Your task to perform on an android device: Open Yahoo.com Image 0: 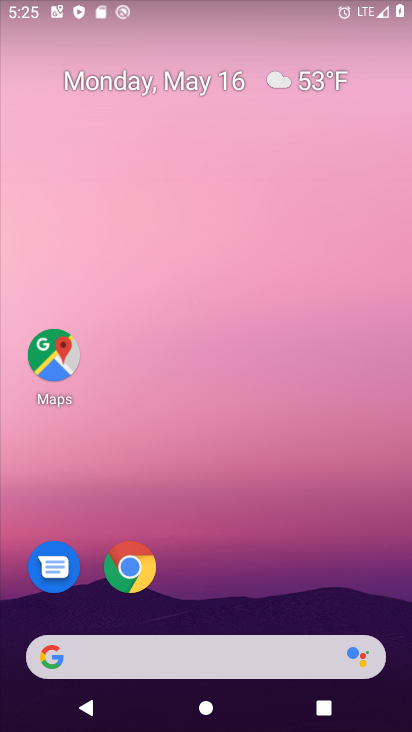
Step 0: drag from (269, 672) to (312, 46)
Your task to perform on an android device: Open Yahoo.com Image 1: 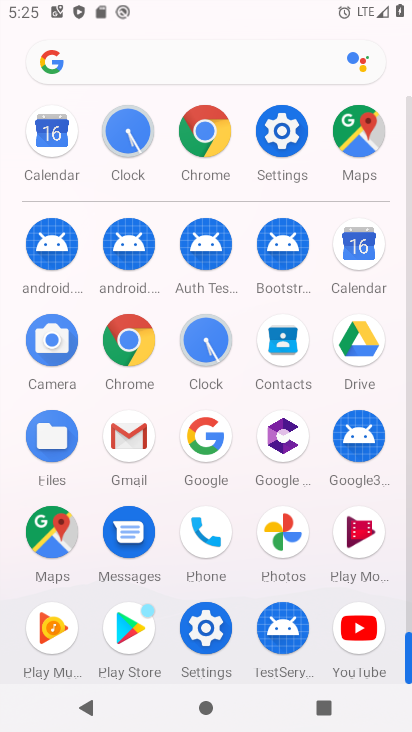
Step 1: click (146, 333)
Your task to perform on an android device: Open Yahoo.com Image 2: 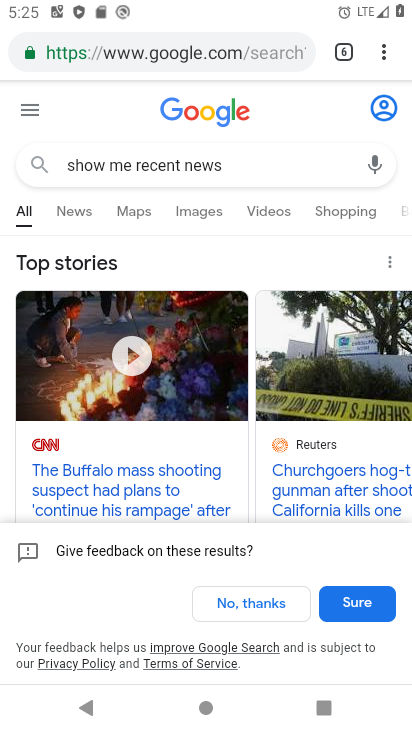
Step 2: click (234, 48)
Your task to perform on an android device: Open Yahoo.com Image 3: 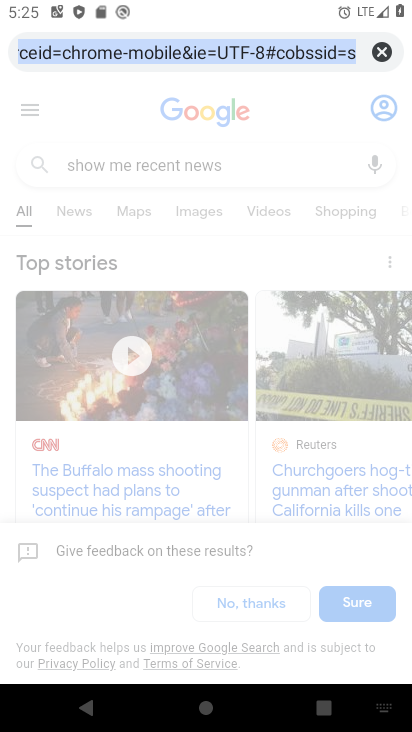
Step 3: click (380, 55)
Your task to perform on an android device: Open Yahoo.com Image 4: 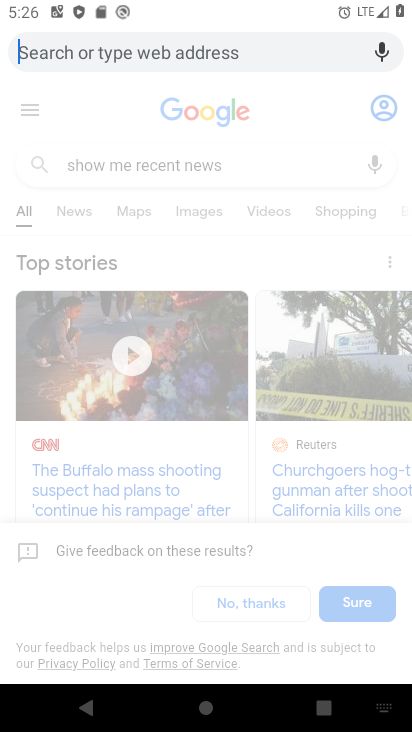
Step 4: type "yahoo.com"
Your task to perform on an android device: Open Yahoo.com Image 5: 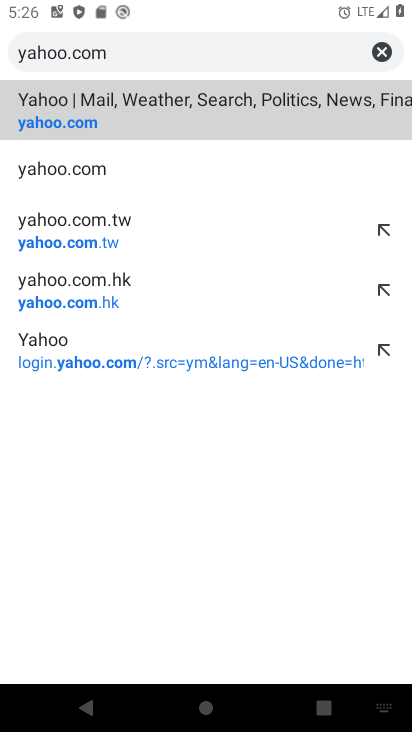
Step 5: click (82, 108)
Your task to perform on an android device: Open Yahoo.com Image 6: 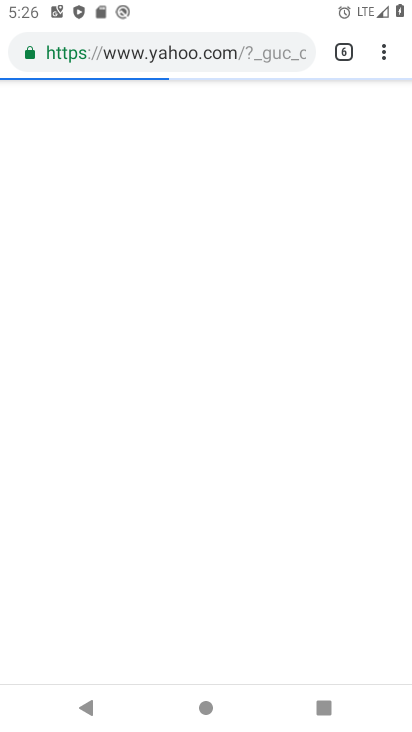
Step 6: task complete